Your task to perform on an android device: Open the calendar and show me this week's events? Image 0: 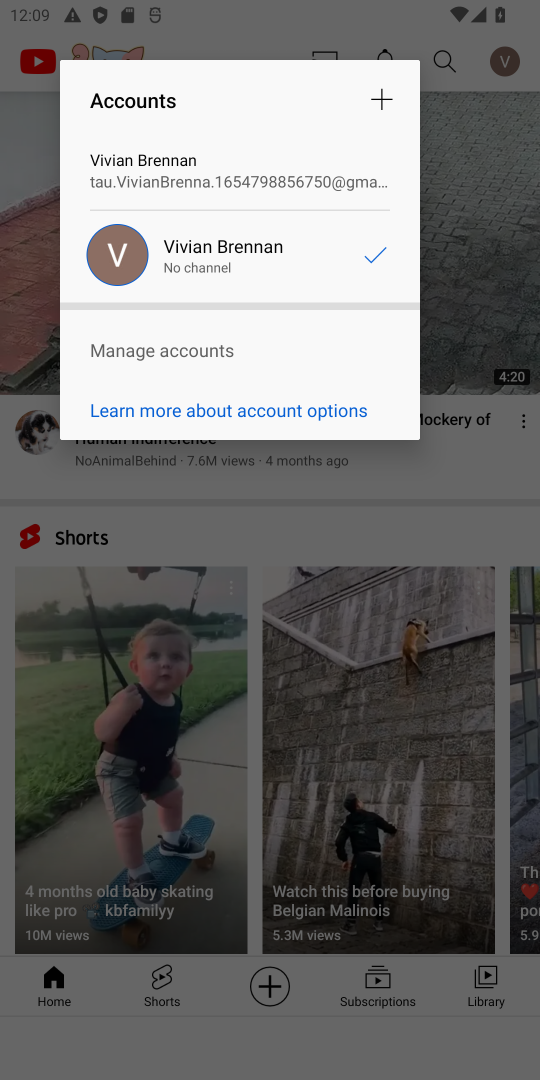
Step 0: press home button
Your task to perform on an android device: Open the calendar and show me this week's events? Image 1: 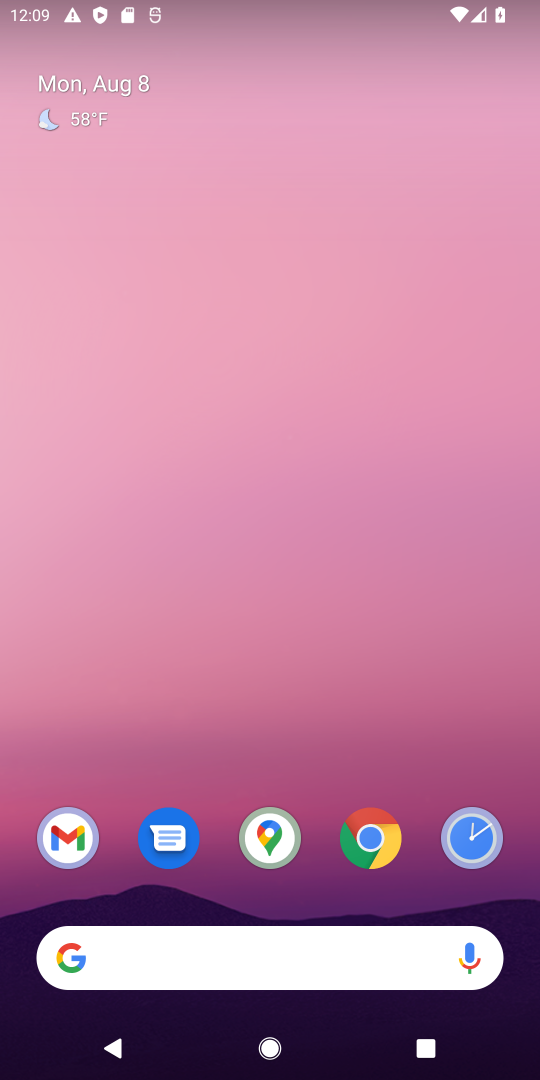
Step 1: press home button
Your task to perform on an android device: Open the calendar and show me this week's events? Image 2: 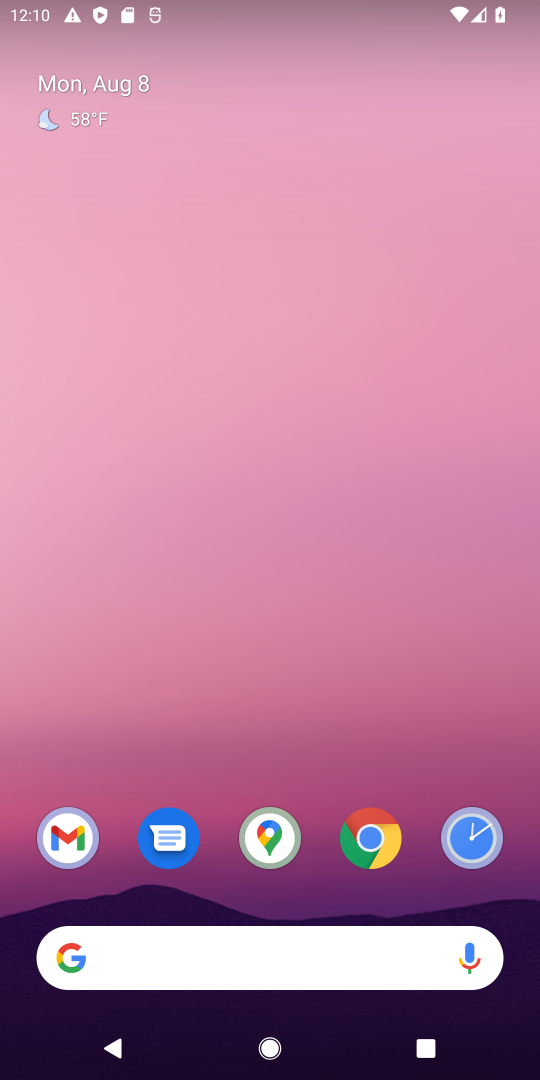
Step 2: drag from (318, 902) to (350, 157)
Your task to perform on an android device: Open the calendar and show me this week's events? Image 3: 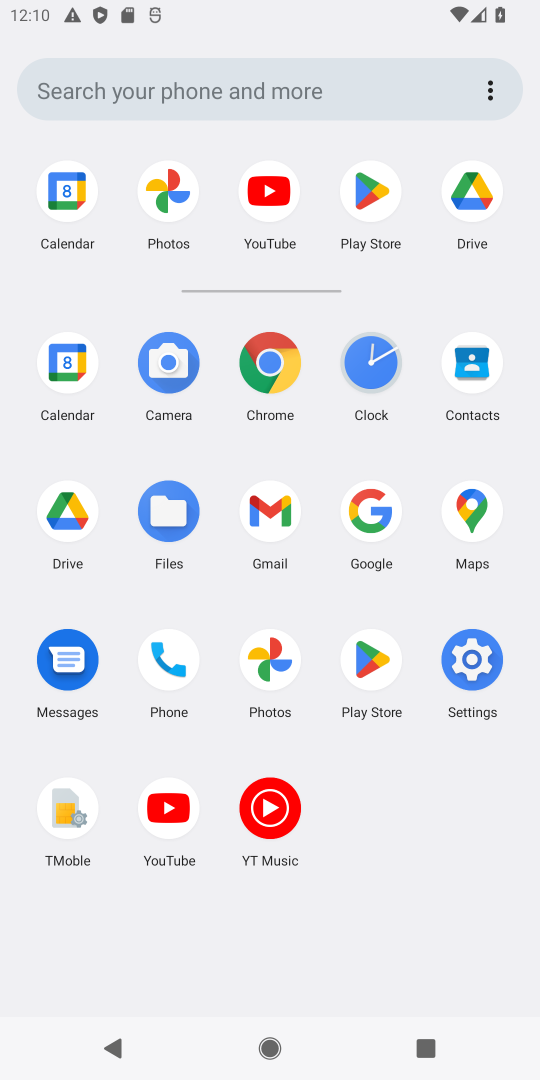
Step 3: click (70, 393)
Your task to perform on an android device: Open the calendar and show me this week's events? Image 4: 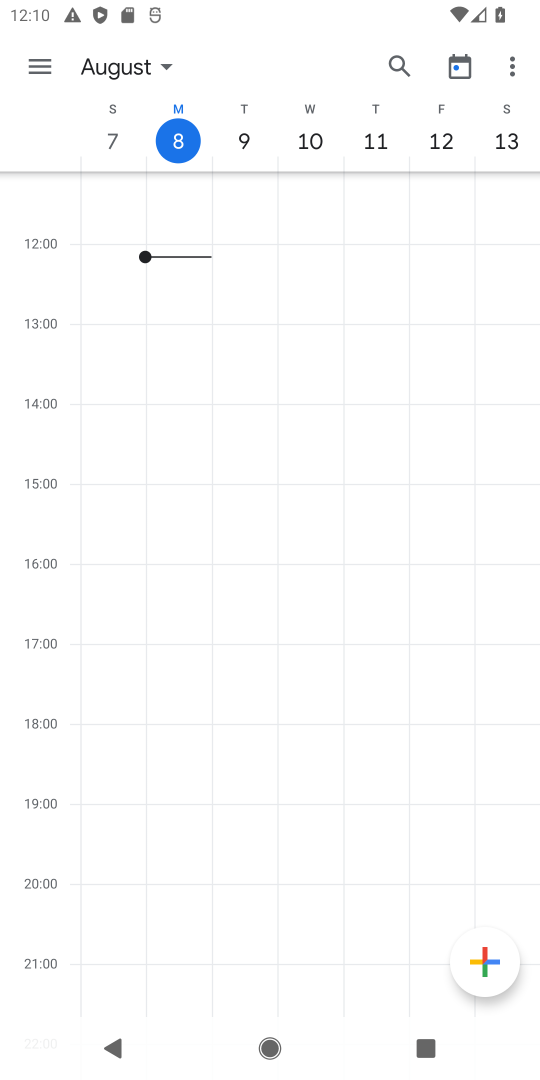
Step 4: click (49, 76)
Your task to perform on an android device: Open the calendar and show me this week's events? Image 5: 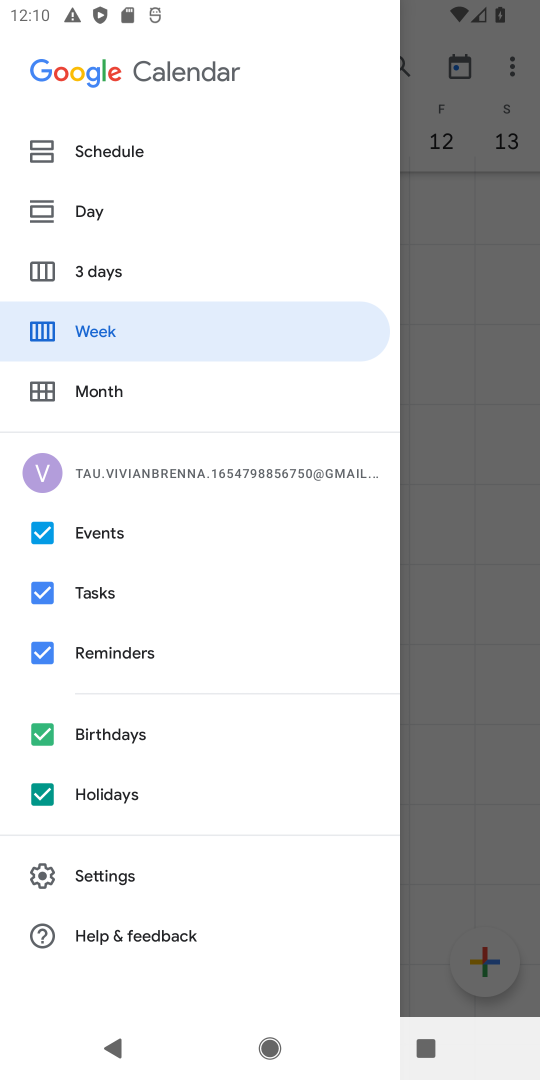
Step 5: click (98, 339)
Your task to perform on an android device: Open the calendar and show me this week's events? Image 6: 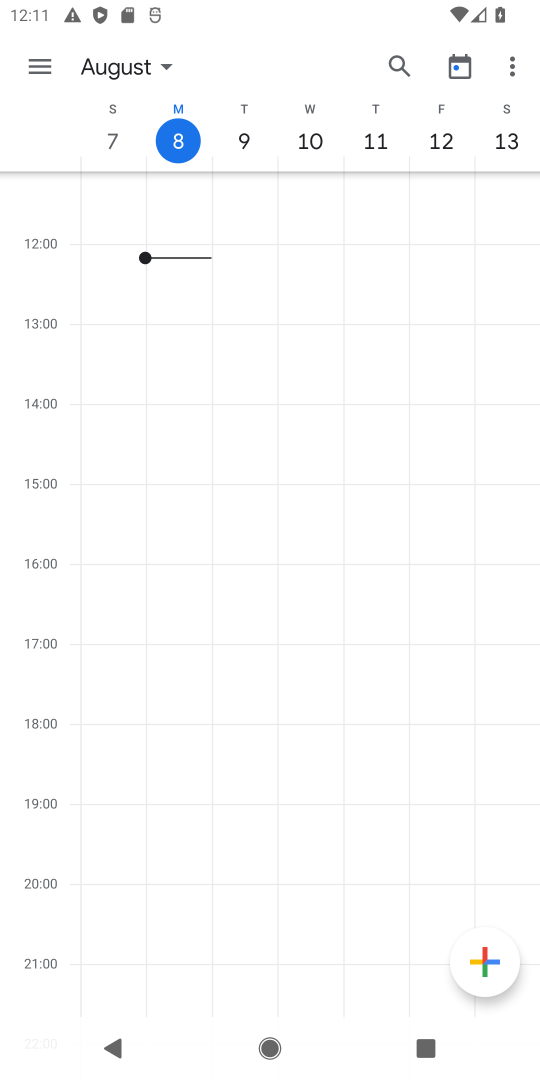
Step 6: task complete